Your task to perform on an android device: What is the recent news? Image 0: 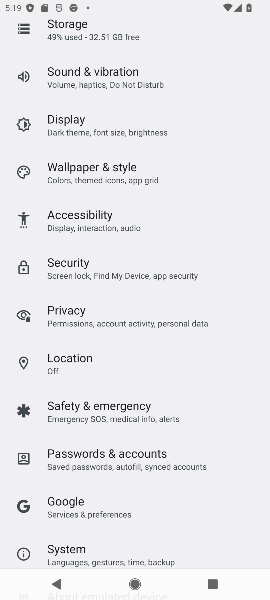
Step 0: press home button
Your task to perform on an android device: What is the recent news? Image 1: 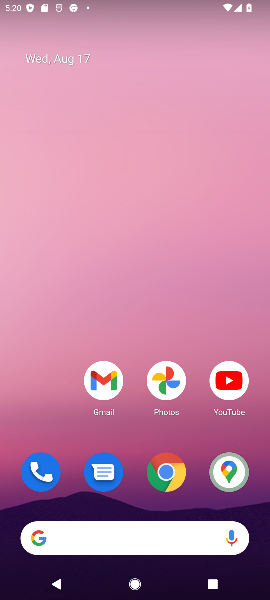
Step 1: drag from (142, 434) to (158, 69)
Your task to perform on an android device: What is the recent news? Image 2: 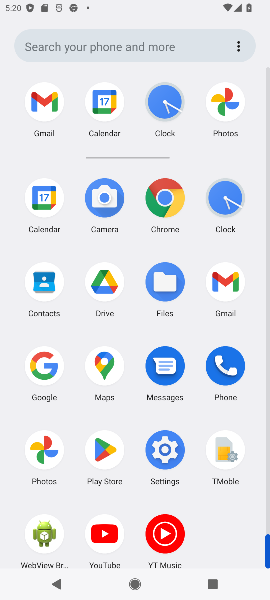
Step 2: click (49, 368)
Your task to perform on an android device: What is the recent news? Image 3: 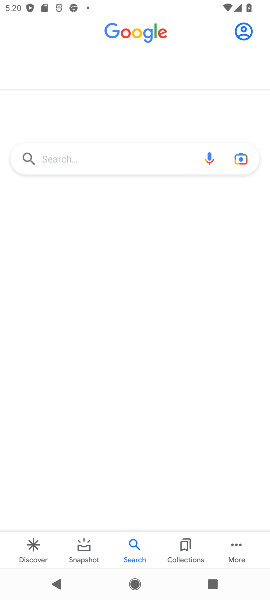
Step 3: click (72, 164)
Your task to perform on an android device: What is the recent news? Image 4: 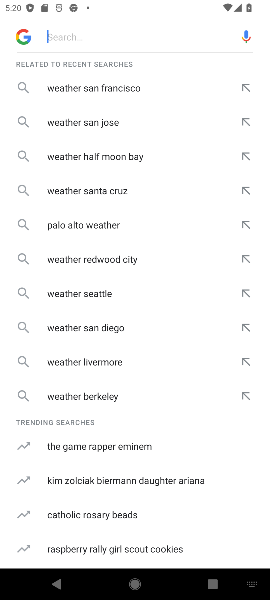
Step 4: type "recent news"
Your task to perform on an android device: What is the recent news? Image 5: 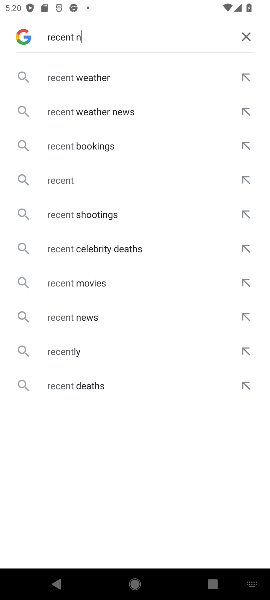
Step 5: type ""
Your task to perform on an android device: What is the recent news? Image 6: 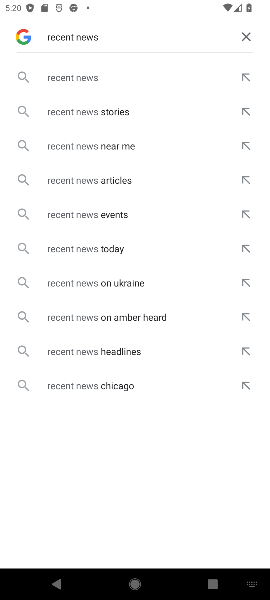
Step 6: click (69, 80)
Your task to perform on an android device: What is the recent news? Image 7: 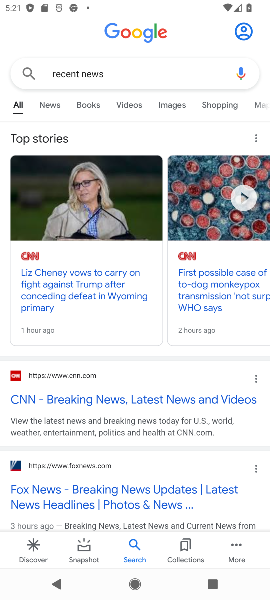
Step 7: click (42, 110)
Your task to perform on an android device: What is the recent news? Image 8: 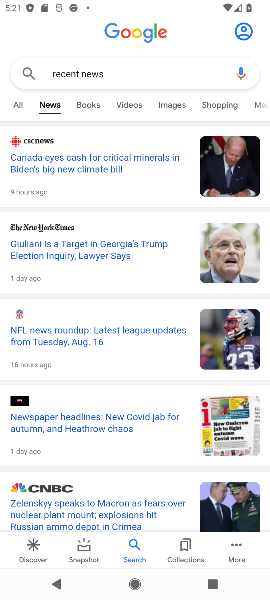
Step 8: task complete